Your task to perform on an android device: Do I have any events today? Image 0: 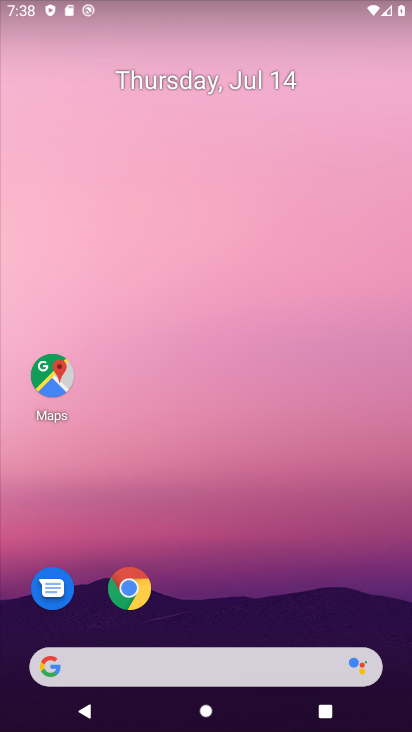
Step 0: drag from (324, 551) to (312, 139)
Your task to perform on an android device: Do I have any events today? Image 1: 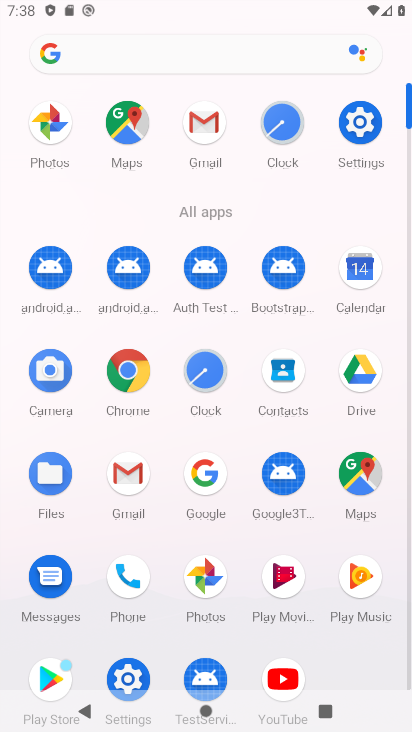
Step 1: click (355, 264)
Your task to perform on an android device: Do I have any events today? Image 2: 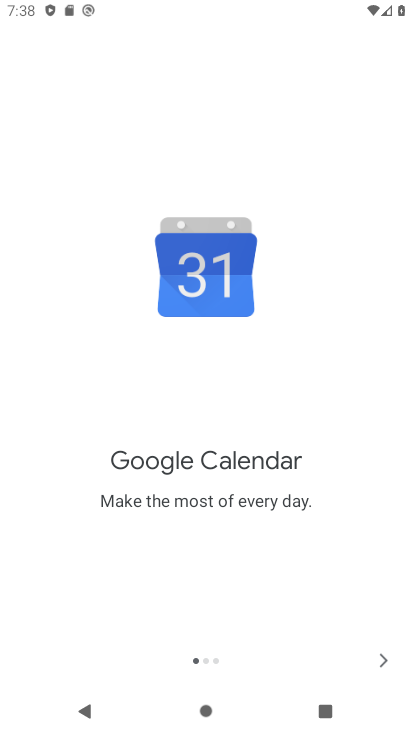
Step 2: click (381, 663)
Your task to perform on an android device: Do I have any events today? Image 3: 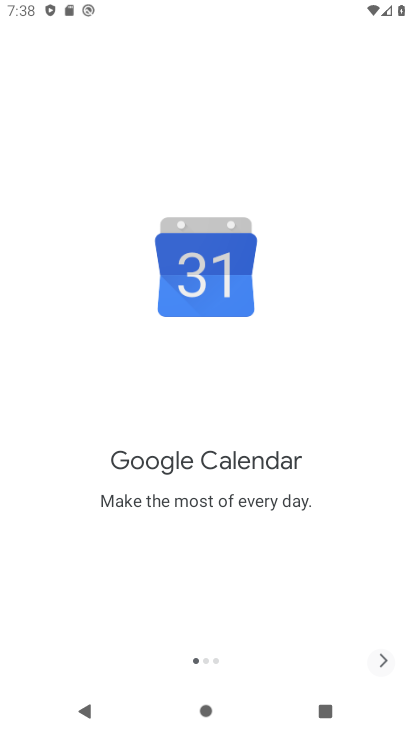
Step 3: click (381, 663)
Your task to perform on an android device: Do I have any events today? Image 4: 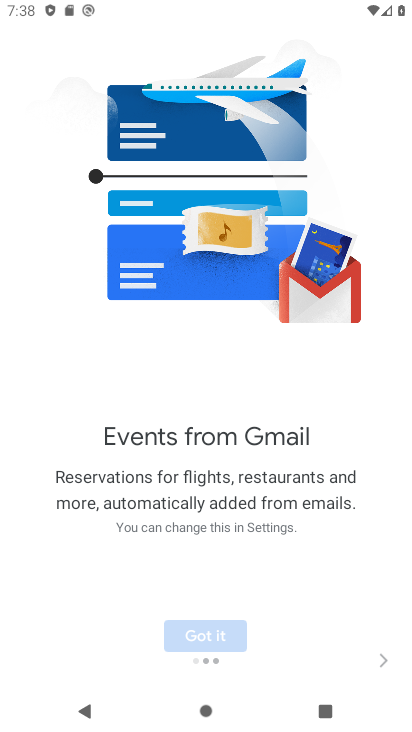
Step 4: click (381, 663)
Your task to perform on an android device: Do I have any events today? Image 5: 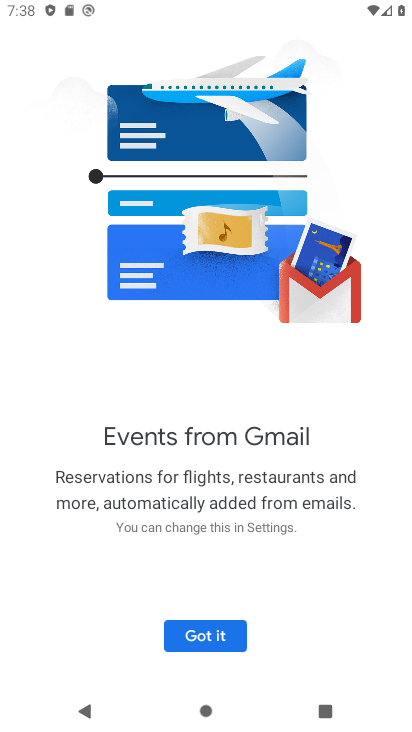
Step 5: click (381, 663)
Your task to perform on an android device: Do I have any events today? Image 6: 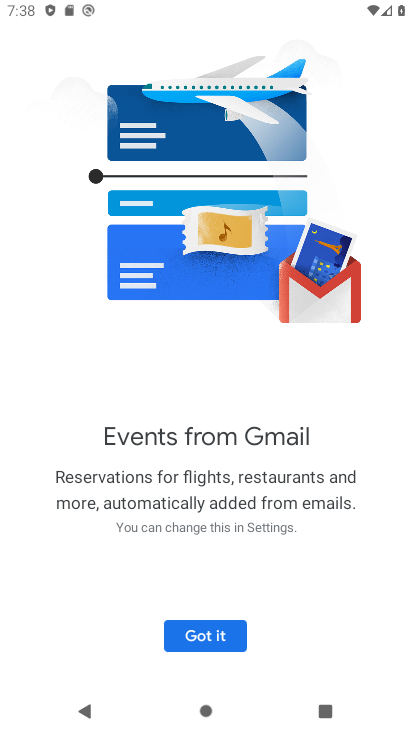
Step 6: click (178, 636)
Your task to perform on an android device: Do I have any events today? Image 7: 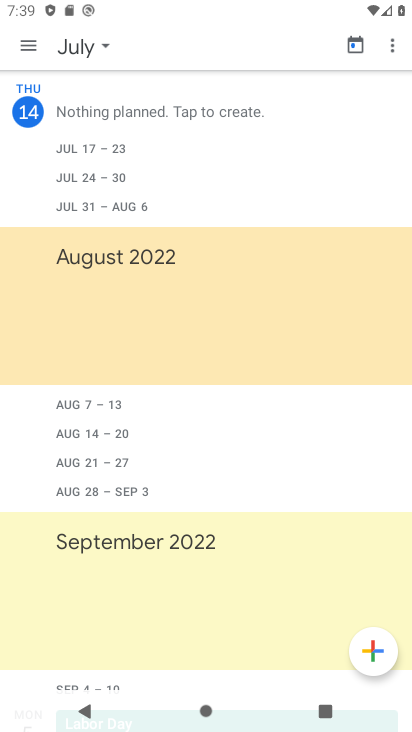
Step 7: click (22, 108)
Your task to perform on an android device: Do I have any events today? Image 8: 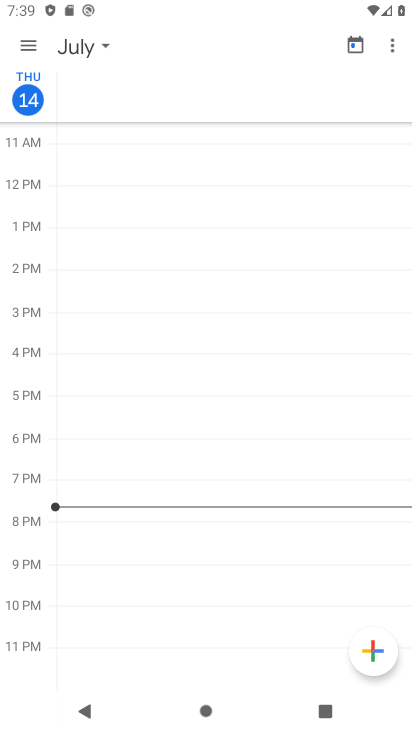
Step 8: task complete